Your task to perform on an android device: Open internet settings Image 0: 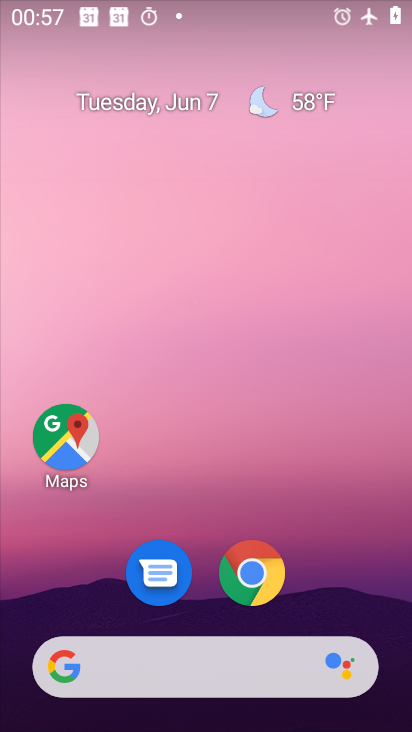
Step 0: press home button
Your task to perform on an android device: Open internet settings Image 1: 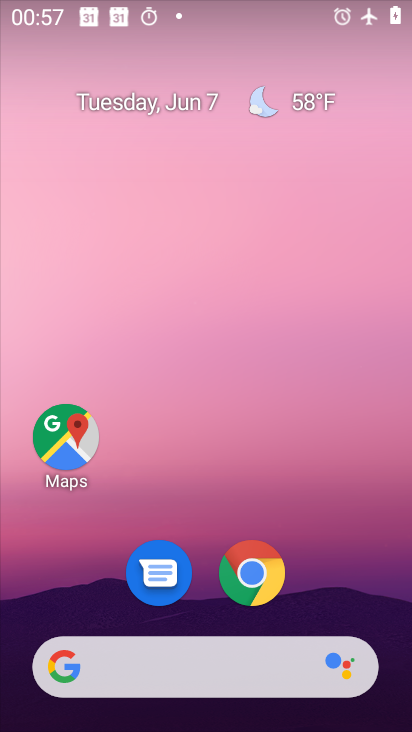
Step 1: drag from (341, 462) to (206, 0)
Your task to perform on an android device: Open internet settings Image 2: 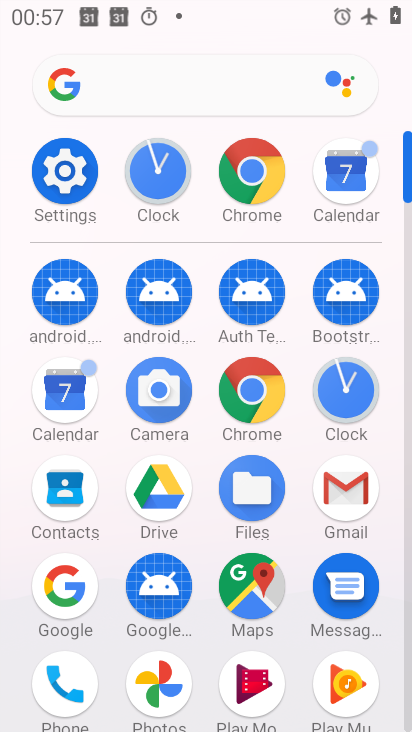
Step 2: click (95, 157)
Your task to perform on an android device: Open internet settings Image 3: 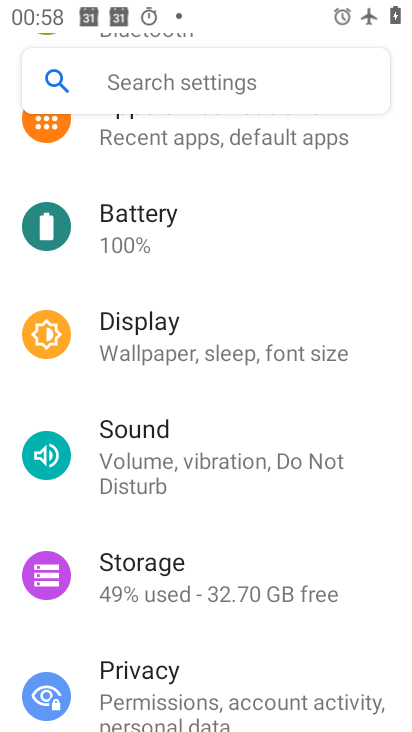
Step 3: drag from (175, 181) to (199, 645)
Your task to perform on an android device: Open internet settings Image 4: 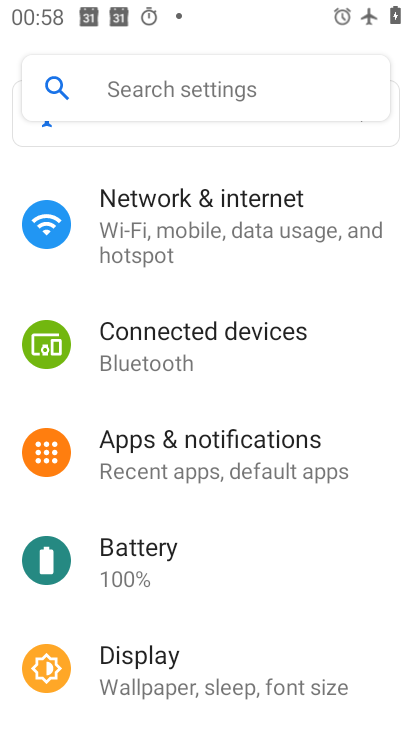
Step 4: click (176, 254)
Your task to perform on an android device: Open internet settings Image 5: 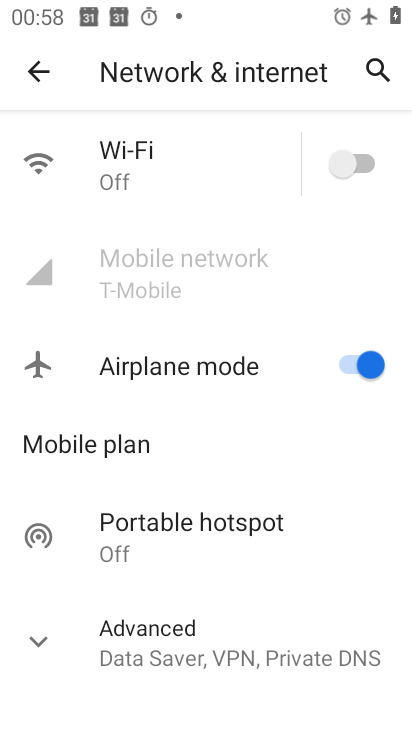
Step 5: task complete